Your task to perform on an android device: Is it going to rain tomorrow? Image 0: 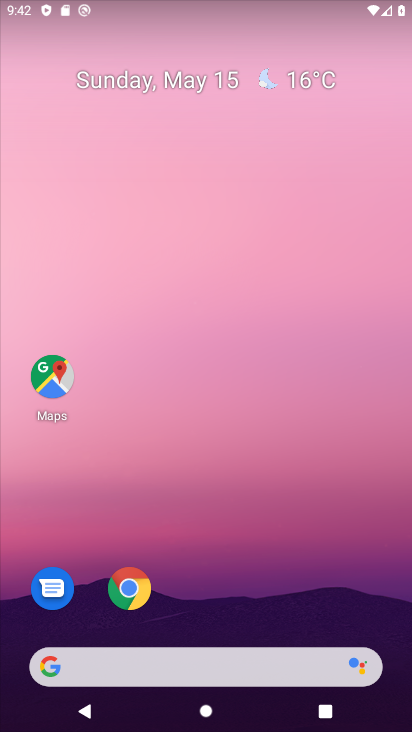
Step 0: click (219, 675)
Your task to perform on an android device: Is it going to rain tomorrow? Image 1: 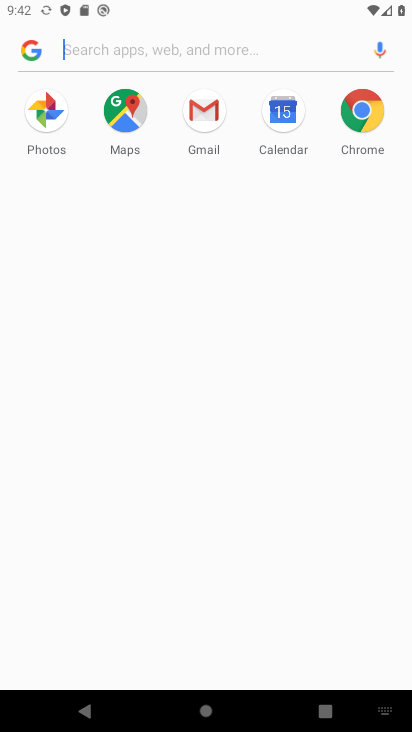
Step 1: type "Is it going to rain tomorrow?"
Your task to perform on an android device: Is it going to rain tomorrow? Image 2: 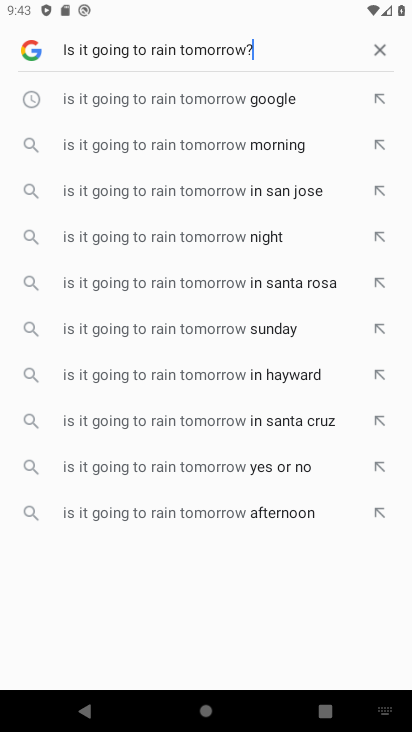
Step 2: click (145, 107)
Your task to perform on an android device: Is it going to rain tomorrow? Image 3: 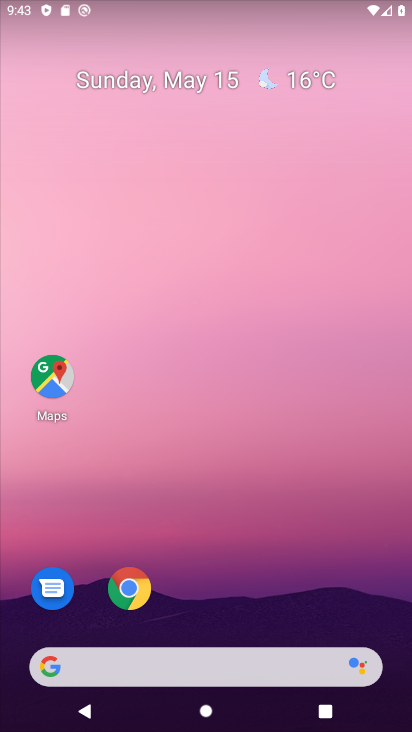
Step 3: task complete